Your task to perform on an android device: turn smart compose on in the gmail app Image 0: 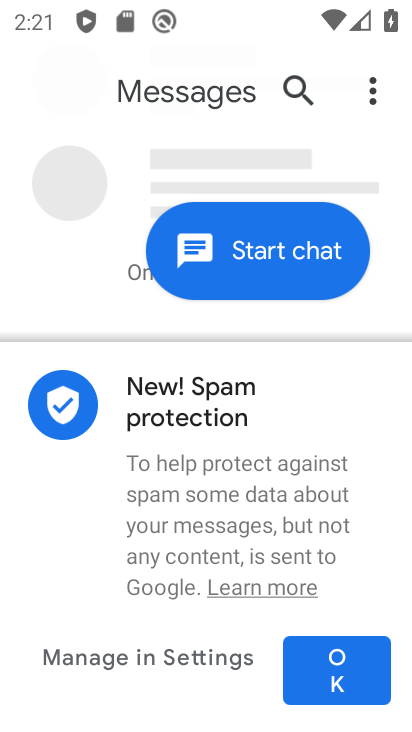
Step 0: press home button
Your task to perform on an android device: turn smart compose on in the gmail app Image 1: 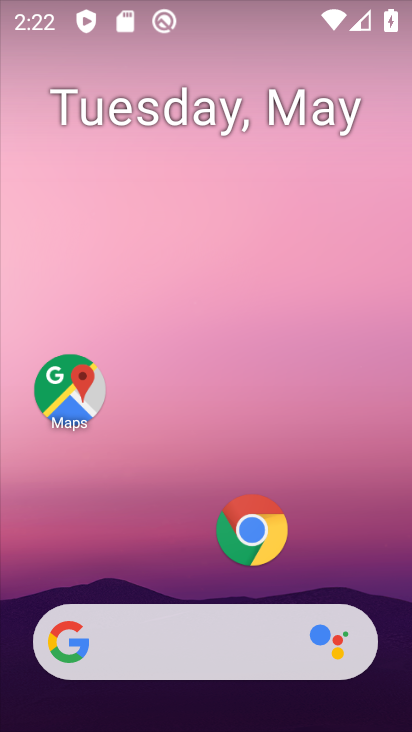
Step 1: drag from (192, 566) to (221, 191)
Your task to perform on an android device: turn smart compose on in the gmail app Image 2: 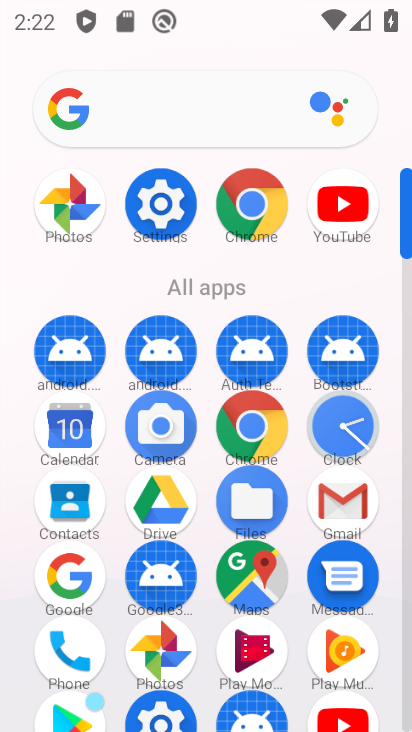
Step 2: click (344, 483)
Your task to perform on an android device: turn smart compose on in the gmail app Image 3: 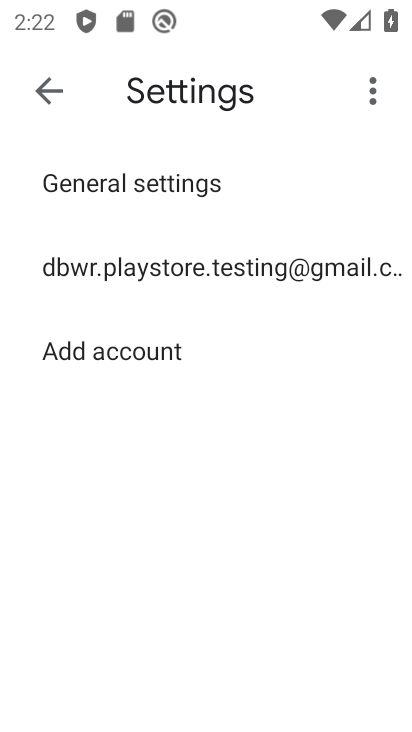
Step 3: click (173, 259)
Your task to perform on an android device: turn smart compose on in the gmail app Image 4: 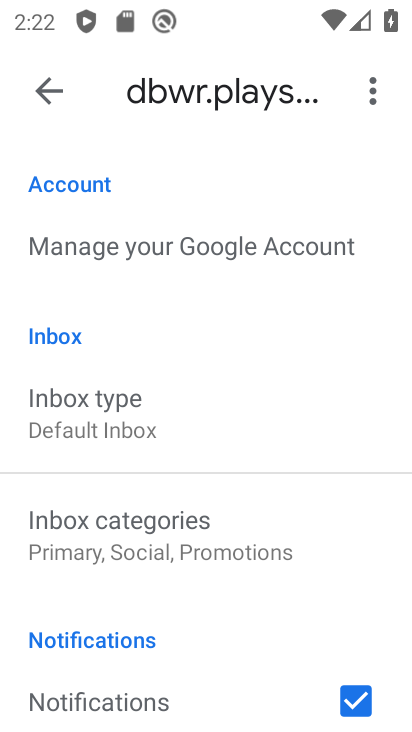
Step 4: task complete